Your task to perform on an android device: turn off wifi Image 0: 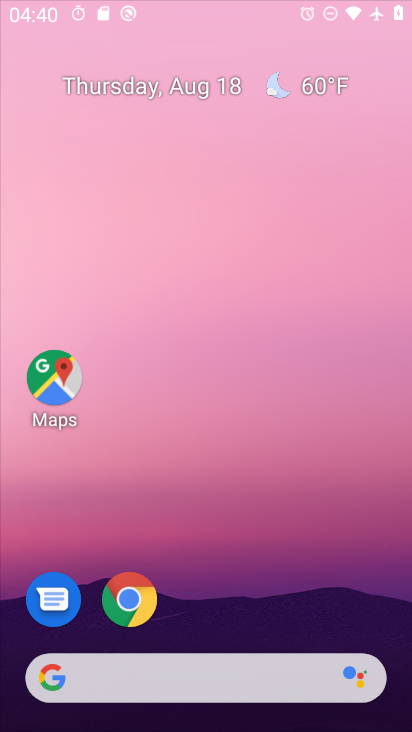
Step 0: press home button
Your task to perform on an android device: turn off wifi Image 1: 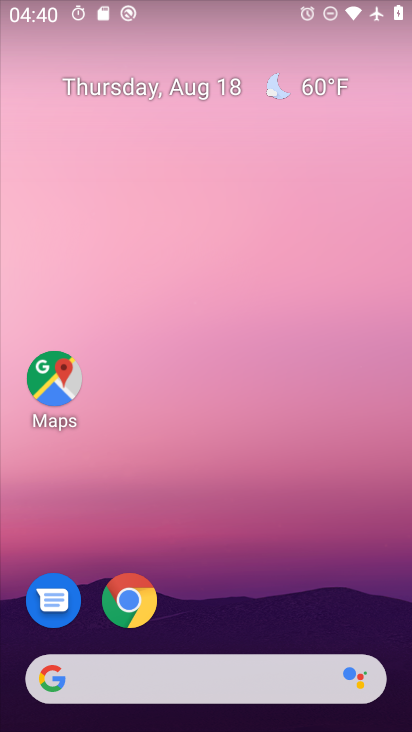
Step 1: drag from (196, 10) to (209, 483)
Your task to perform on an android device: turn off wifi Image 2: 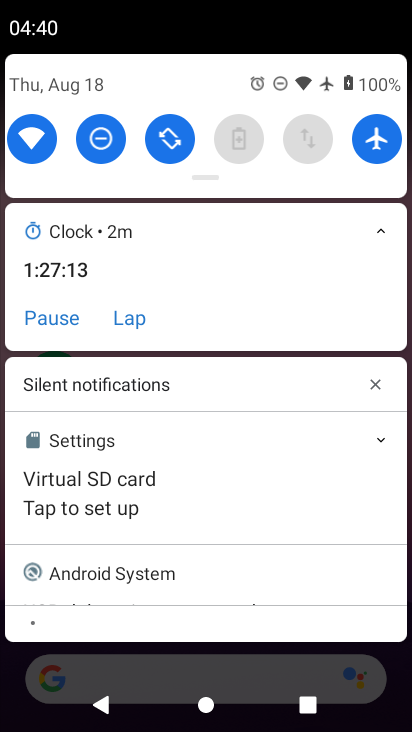
Step 2: click (32, 140)
Your task to perform on an android device: turn off wifi Image 3: 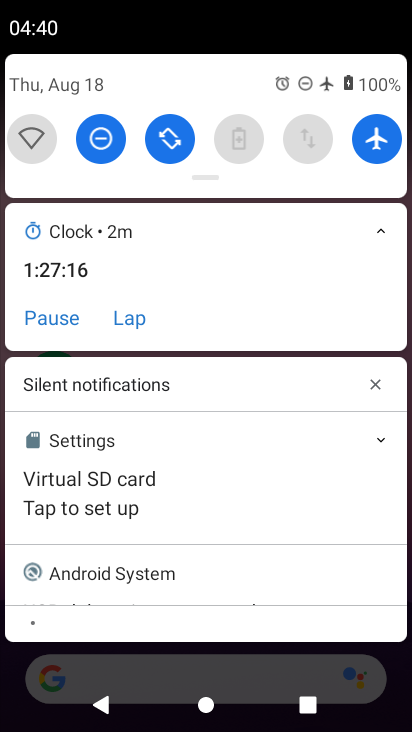
Step 3: task complete